Your task to perform on an android device: Search for Italian restaurants on Maps Image 0: 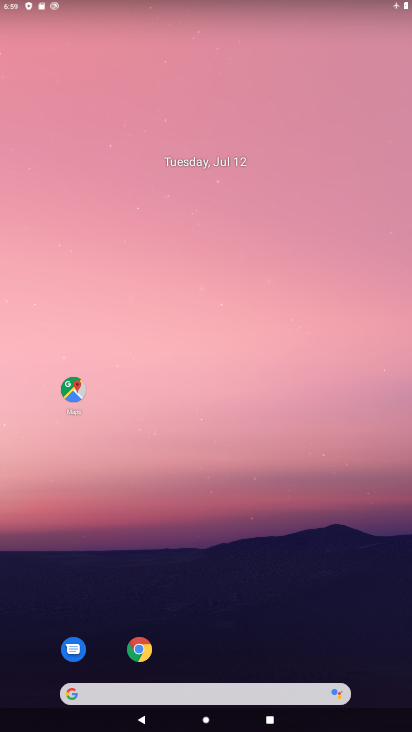
Step 0: drag from (198, 305) to (196, 72)
Your task to perform on an android device: Search for Italian restaurants on Maps Image 1: 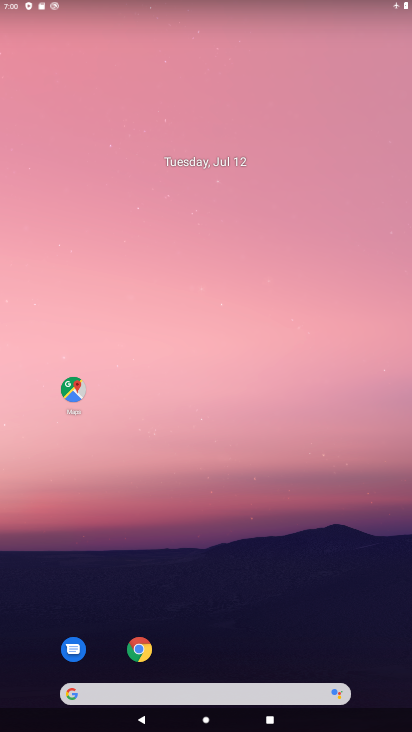
Step 1: click (64, 385)
Your task to perform on an android device: Search for Italian restaurants on Maps Image 2: 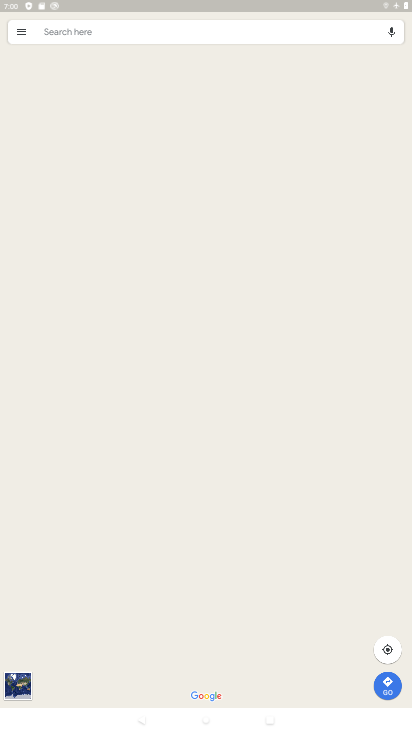
Step 2: click (81, 18)
Your task to perform on an android device: Search for Italian restaurants on Maps Image 3: 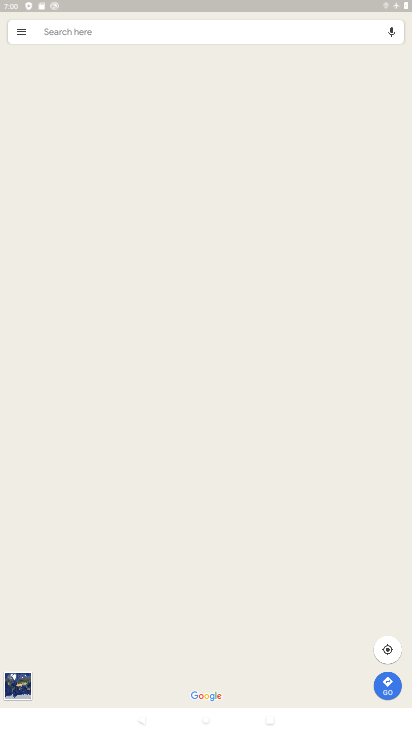
Step 3: click (93, 29)
Your task to perform on an android device: Search for Italian restaurants on Maps Image 4: 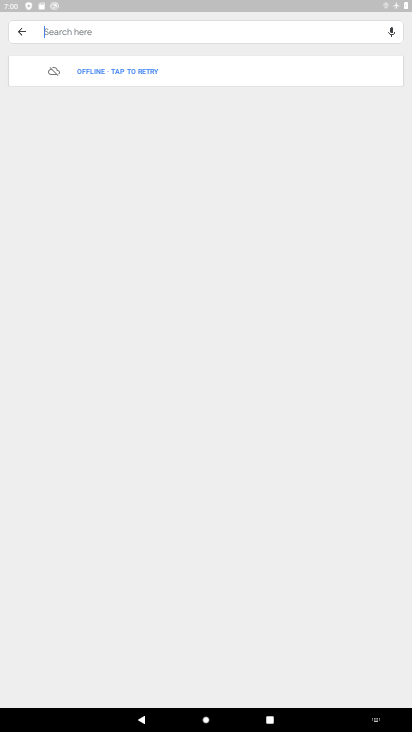
Step 4: task complete